Your task to perform on an android device: delete location history Image 0: 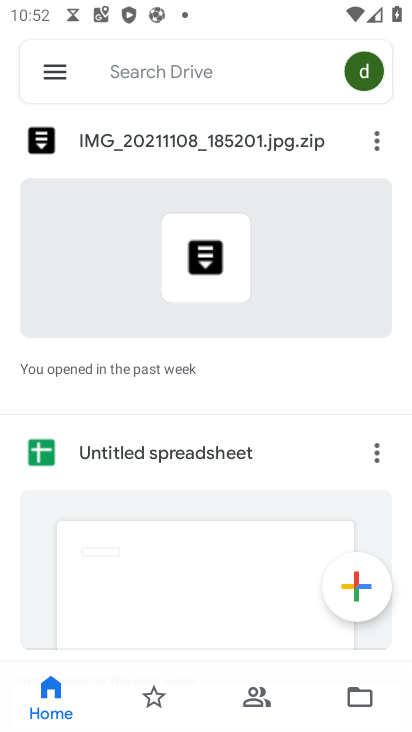
Step 0: press home button
Your task to perform on an android device: delete location history Image 1: 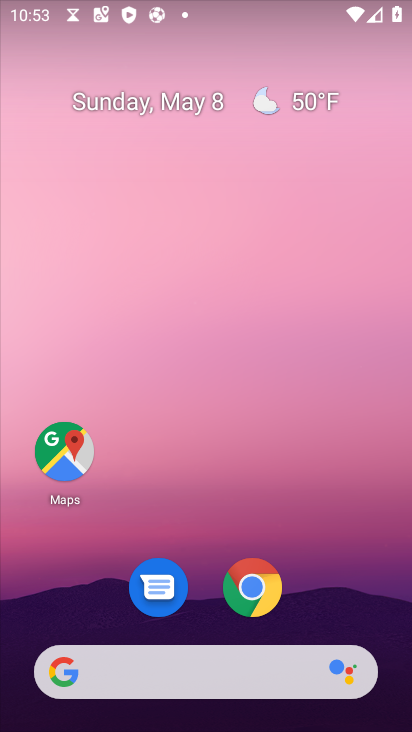
Step 1: click (55, 441)
Your task to perform on an android device: delete location history Image 2: 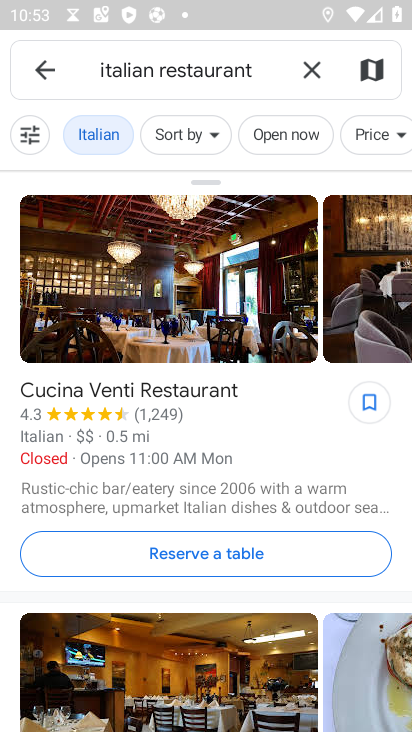
Step 2: press back button
Your task to perform on an android device: delete location history Image 3: 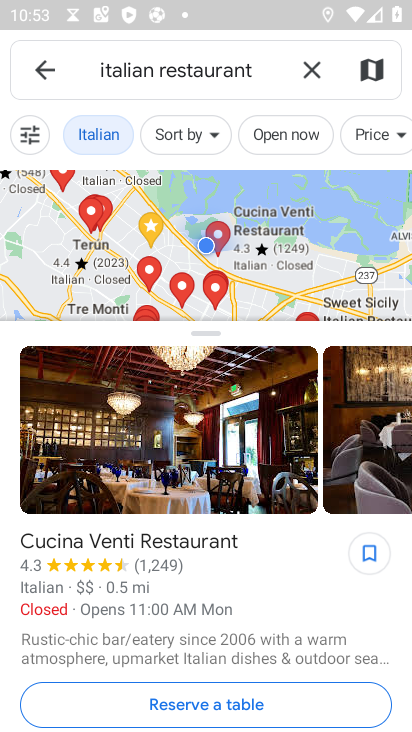
Step 3: click (38, 76)
Your task to perform on an android device: delete location history Image 4: 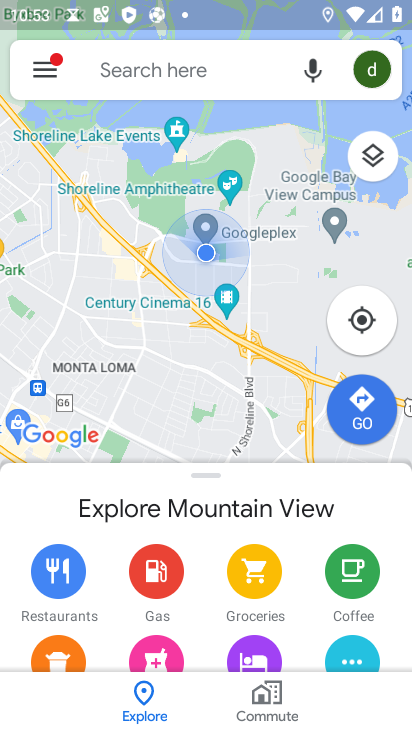
Step 4: click (44, 67)
Your task to perform on an android device: delete location history Image 5: 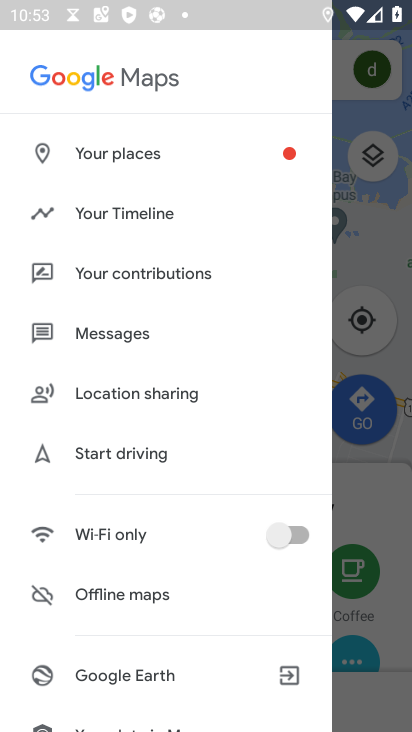
Step 5: drag from (132, 658) to (127, 197)
Your task to perform on an android device: delete location history Image 6: 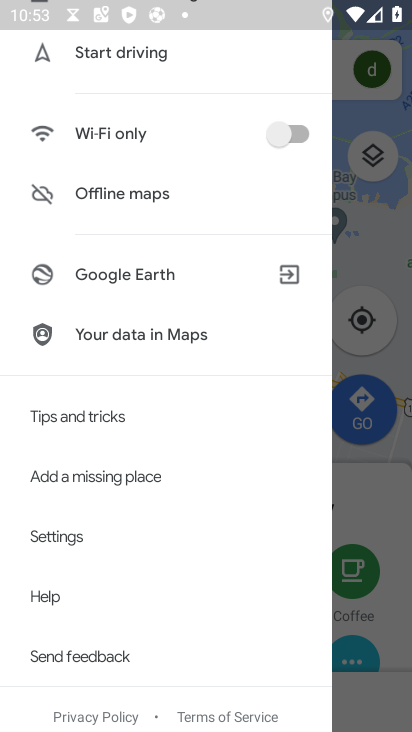
Step 6: click (40, 537)
Your task to perform on an android device: delete location history Image 7: 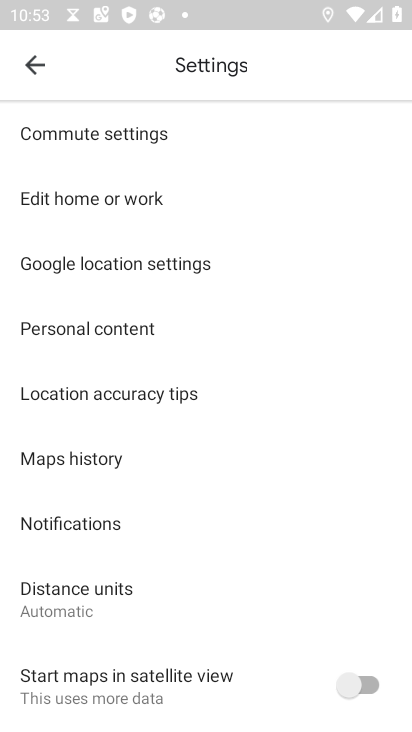
Step 7: click (90, 452)
Your task to perform on an android device: delete location history Image 8: 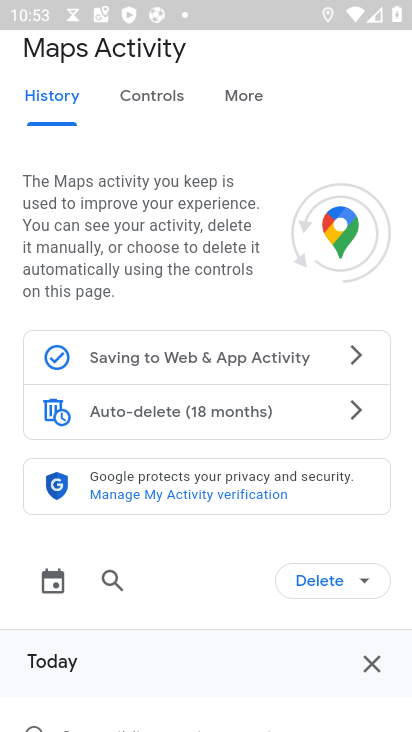
Step 8: click (336, 573)
Your task to perform on an android device: delete location history Image 9: 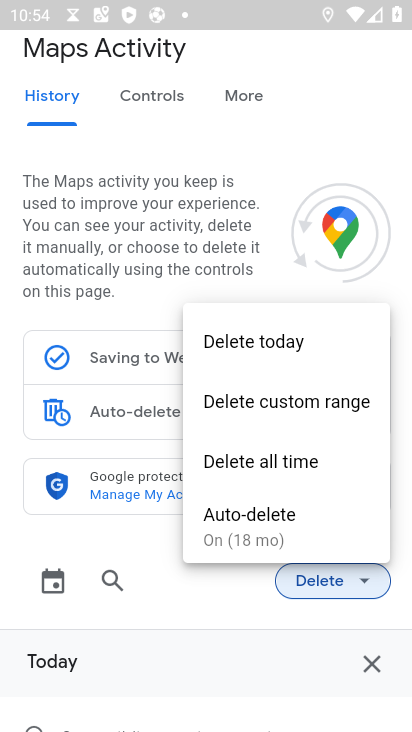
Step 9: click (276, 463)
Your task to perform on an android device: delete location history Image 10: 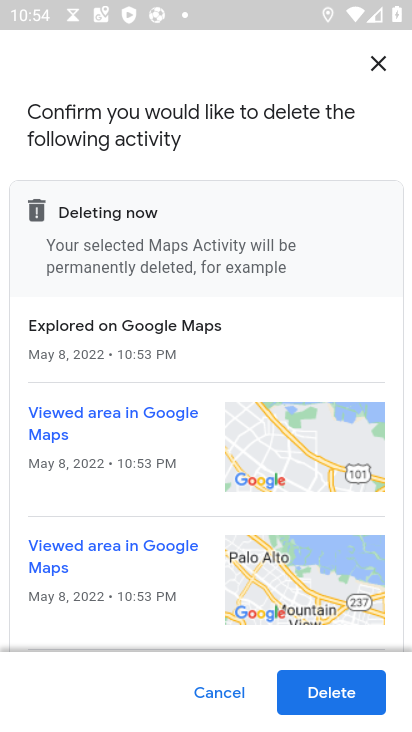
Step 10: click (330, 691)
Your task to perform on an android device: delete location history Image 11: 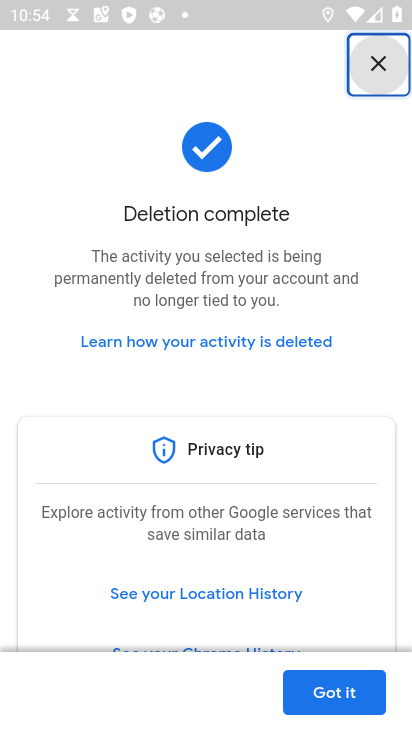
Step 11: click (330, 691)
Your task to perform on an android device: delete location history Image 12: 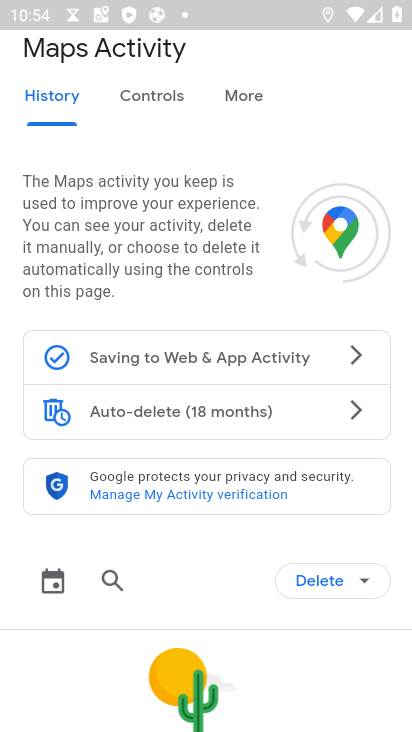
Step 12: task complete